Your task to perform on an android device: turn on airplane mode Image 0: 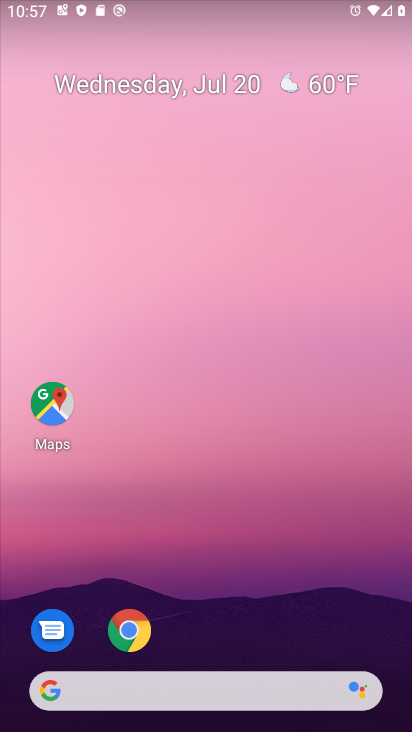
Step 0: drag from (193, 718) to (152, 154)
Your task to perform on an android device: turn on airplane mode Image 1: 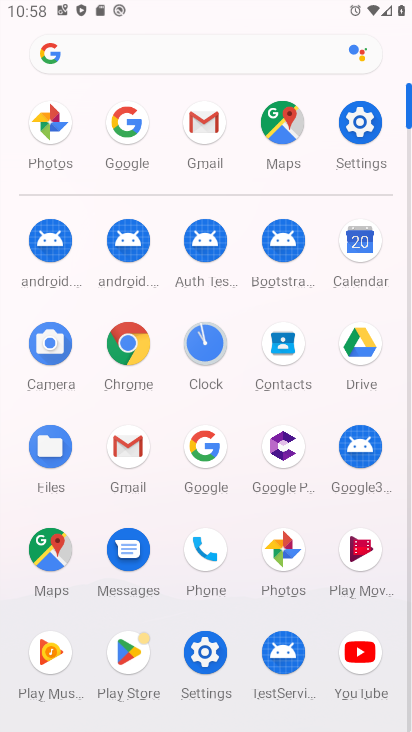
Step 1: click (354, 124)
Your task to perform on an android device: turn on airplane mode Image 2: 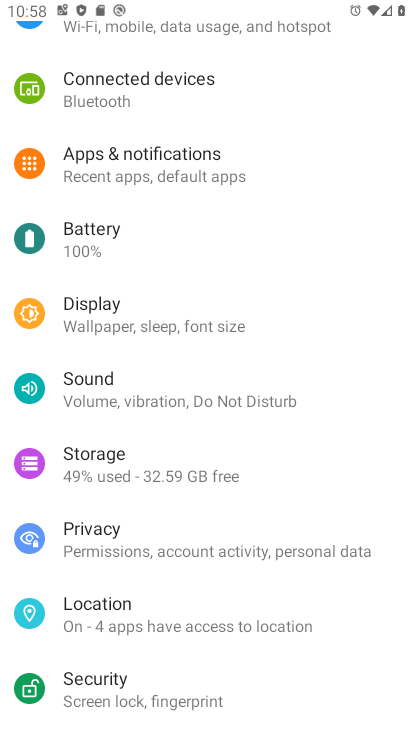
Step 2: drag from (147, 122) to (132, 525)
Your task to perform on an android device: turn on airplane mode Image 3: 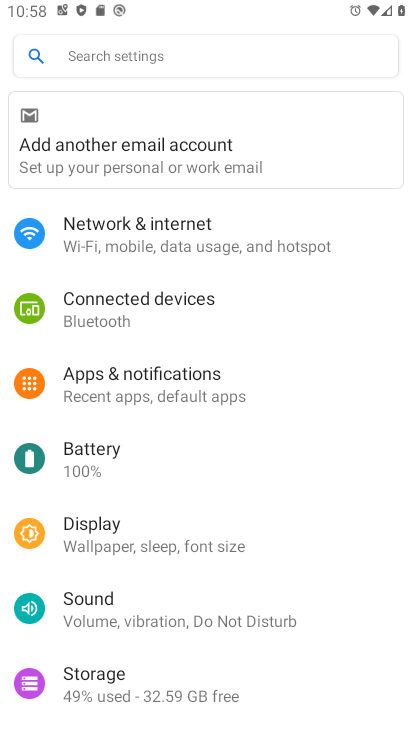
Step 3: click (104, 239)
Your task to perform on an android device: turn on airplane mode Image 4: 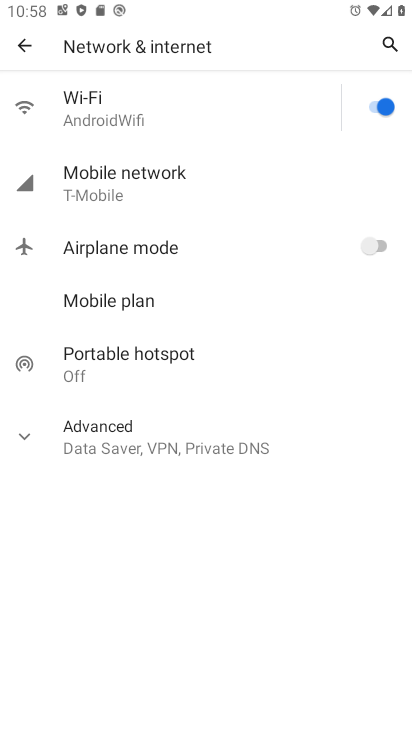
Step 4: click (374, 244)
Your task to perform on an android device: turn on airplane mode Image 5: 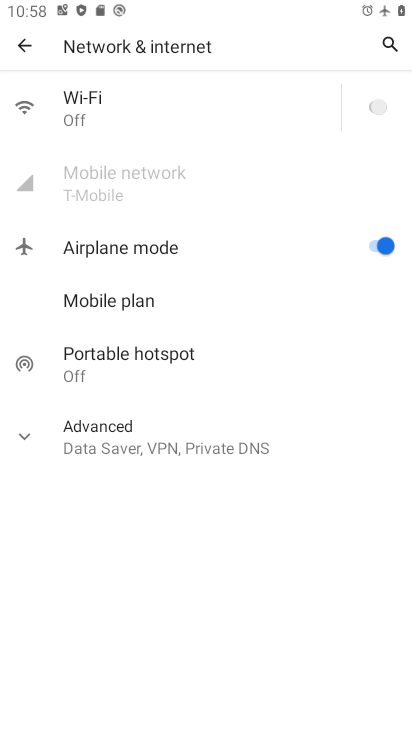
Step 5: task complete